Your task to perform on an android device: empty trash in google photos Image 0: 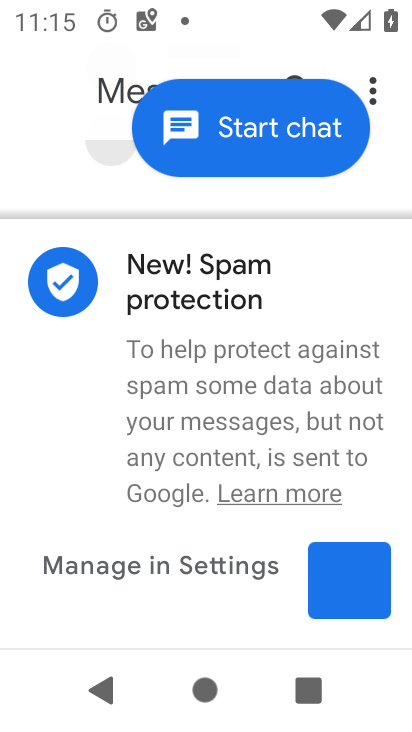
Step 0: press back button
Your task to perform on an android device: empty trash in google photos Image 1: 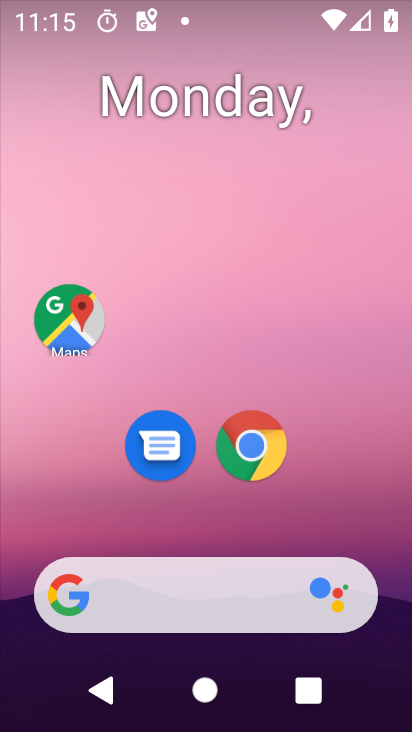
Step 1: drag from (196, 528) to (245, 161)
Your task to perform on an android device: empty trash in google photos Image 2: 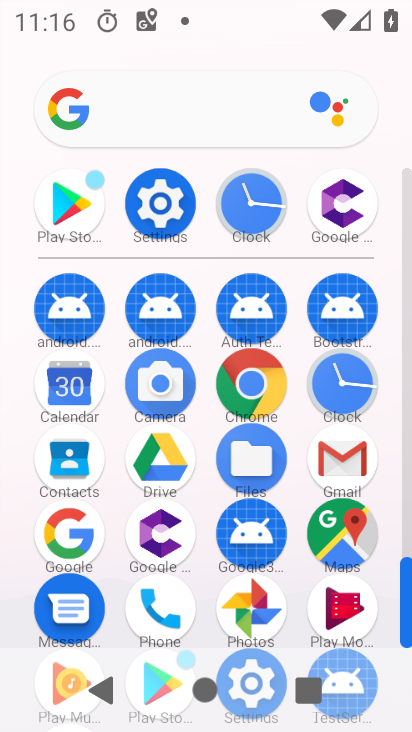
Step 2: click (251, 612)
Your task to perform on an android device: empty trash in google photos Image 3: 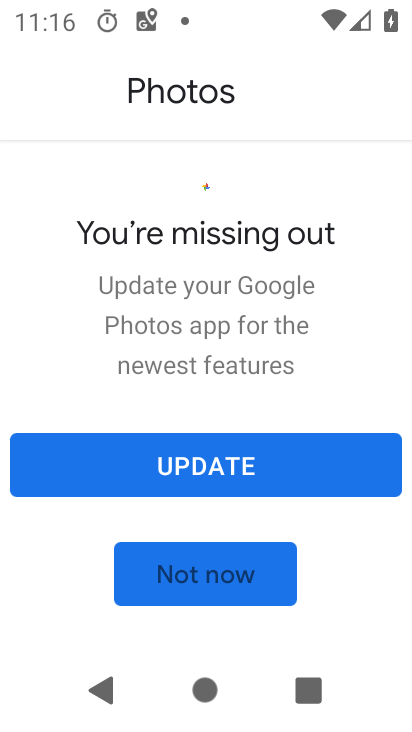
Step 3: click (187, 571)
Your task to perform on an android device: empty trash in google photos Image 4: 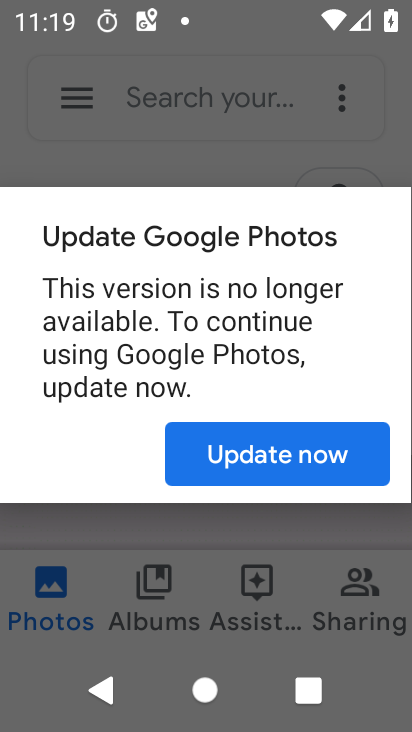
Step 4: click (287, 451)
Your task to perform on an android device: empty trash in google photos Image 5: 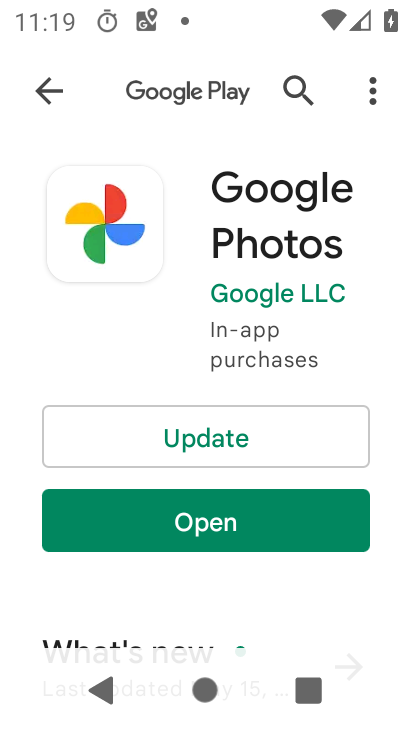
Step 5: click (188, 528)
Your task to perform on an android device: empty trash in google photos Image 6: 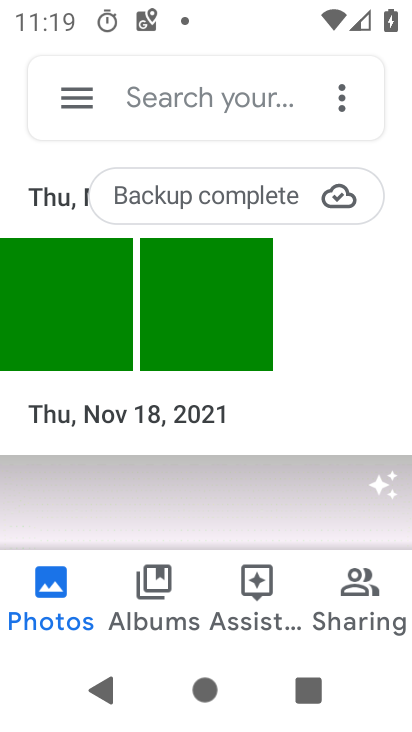
Step 6: click (65, 87)
Your task to perform on an android device: empty trash in google photos Image 7: 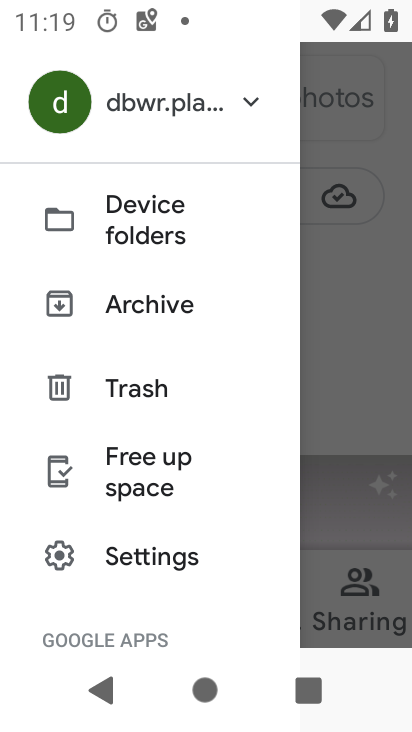
Step 7: click (110, 387)
Your task to perform on an android device: empty trash in google photos Image 8: 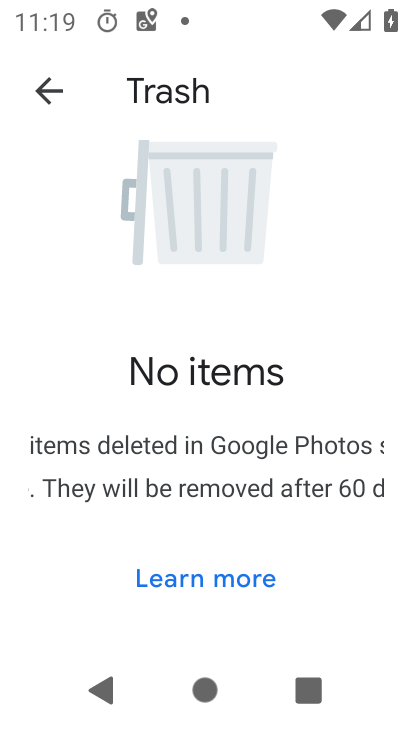
Step 8: task complete